Your task to perform on an android device: Go to Yahoo.com Image 0: 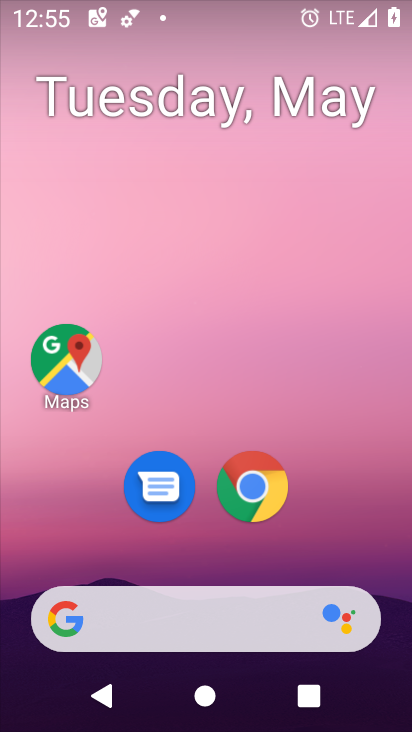
Step 0: click (261, 492)
Your task to perform on an android device: Go to Yahoo.com Image 1: 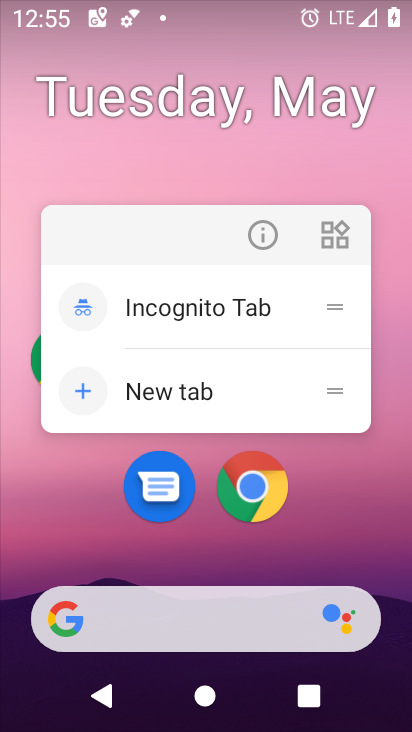
Step 1: click (261, 466)
Your task to perform on an android device: Go to Yahoo.com Image 2: 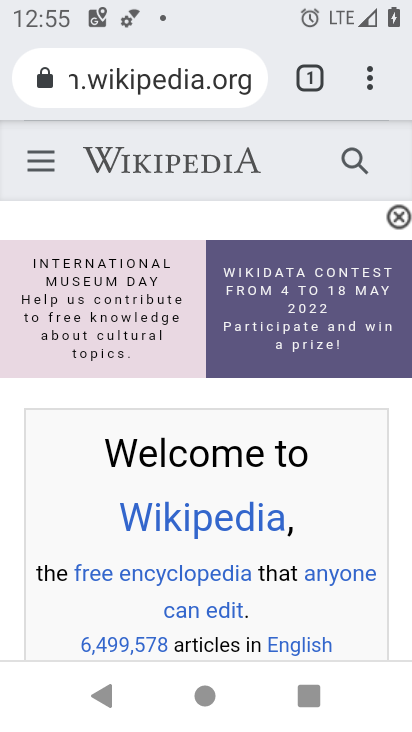
Step 2: click (307, 84)
Your task to perform on an android device: Go to Yahoo.com Image 3: 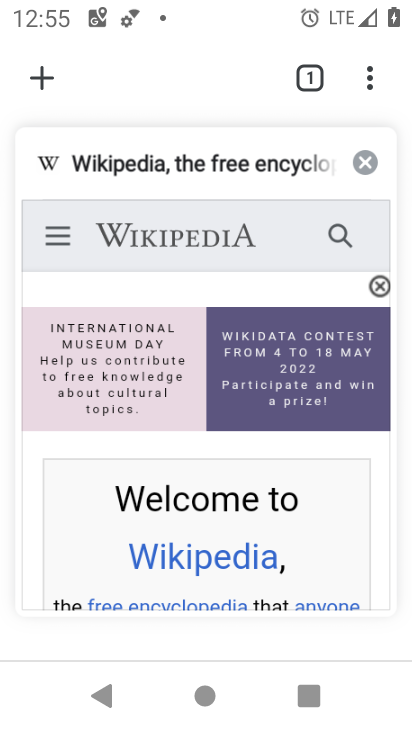
Step 3: click (367, 161)
Your task to perform on an android device: Go to Yahoo.com Image 4: 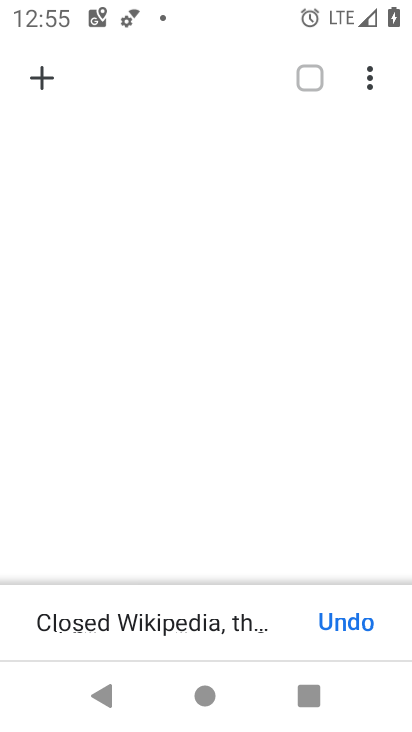
Step 4: click (43, 77)
Your task to perform on an android device: Go to Yahoo.com Image 5: 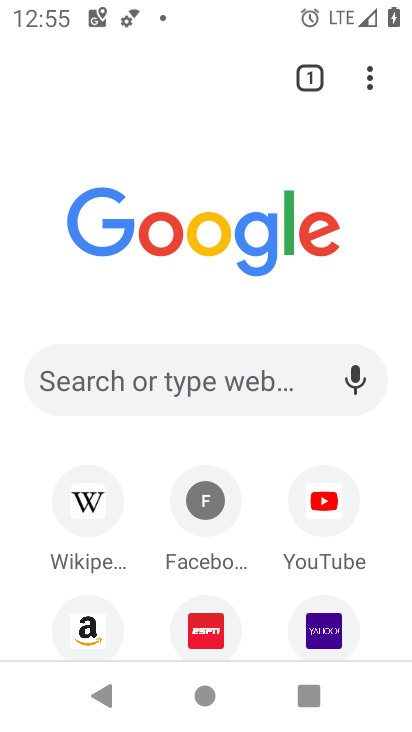
Step 5: click (332, 626)
Your task to perform on an android device: Go to Yahoo.com Image 6: 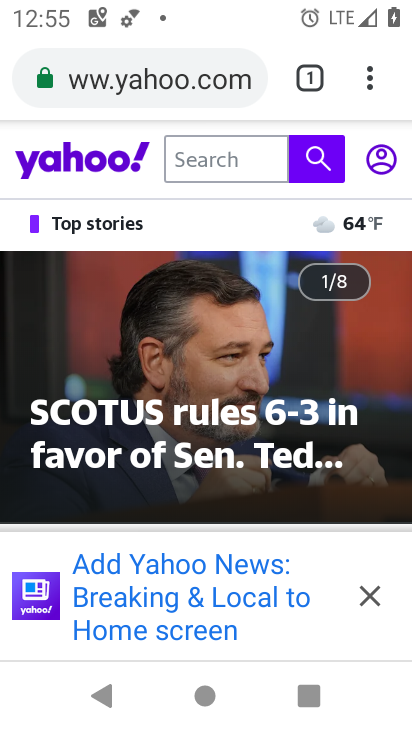
Step 6: task complete